Your task to perform on an android device: find which apps use the phone's location Image 0: 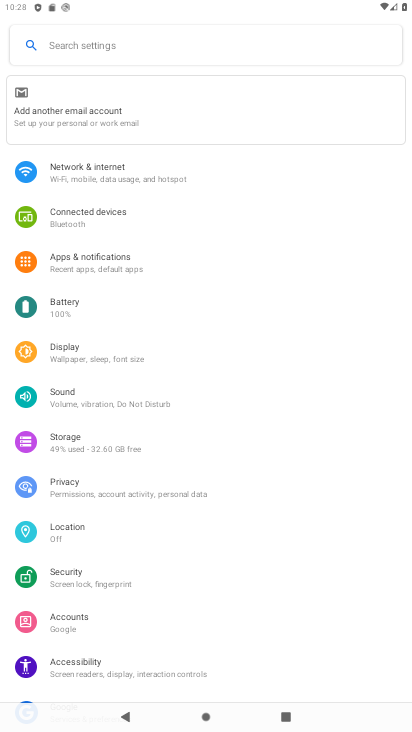
Step 0: task complete